Your task to perform on an android device: Open calendar and show me the first week of next month Image 0: 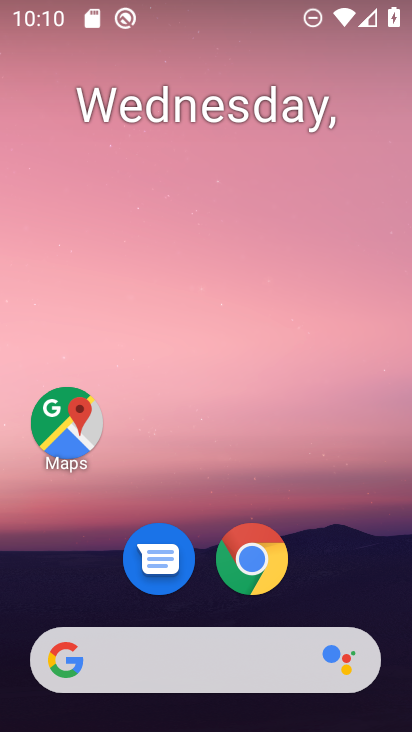
Step 0: drag from (381, 590) to (365, 224)
Your task to perform on an android device: Open calendar and show me the first week of next month Image 1: 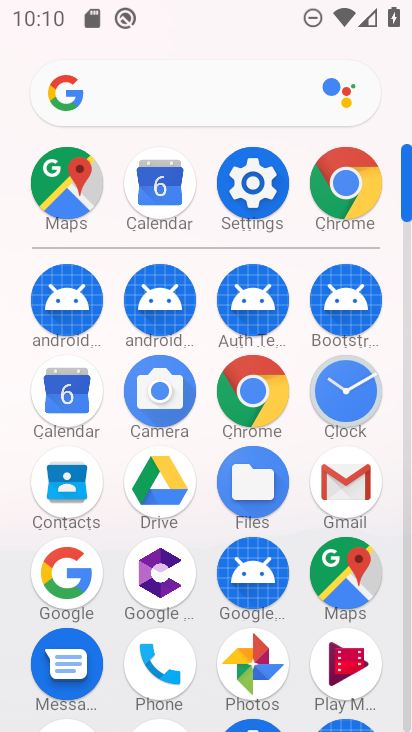
Step 1: click (81, 394)
Your task to perform on an android device: Open calendar and show me the first week of next month Image 2: 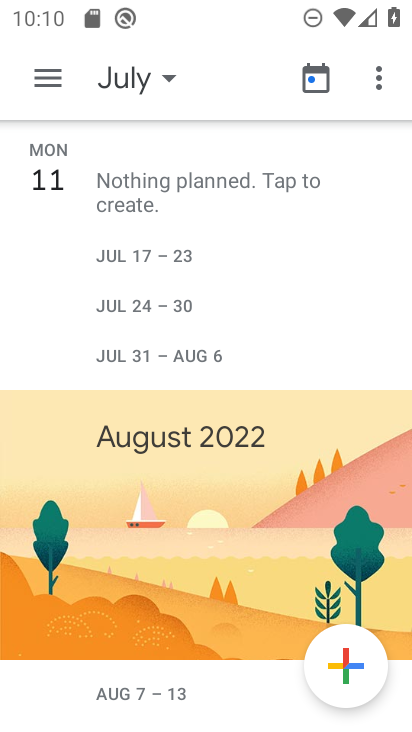
Step 2: click (163, 82)
Your task to perform on an android device: Open calendar and show me the first week of next month Image 3: 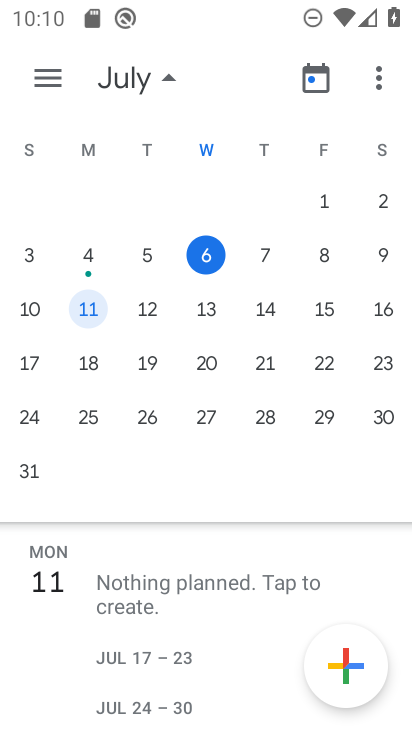
Step 3: drag from (387, 172) to (36, 304)
Your task to perform on an android device: Open calendar and show me the first week of next month Image 4: 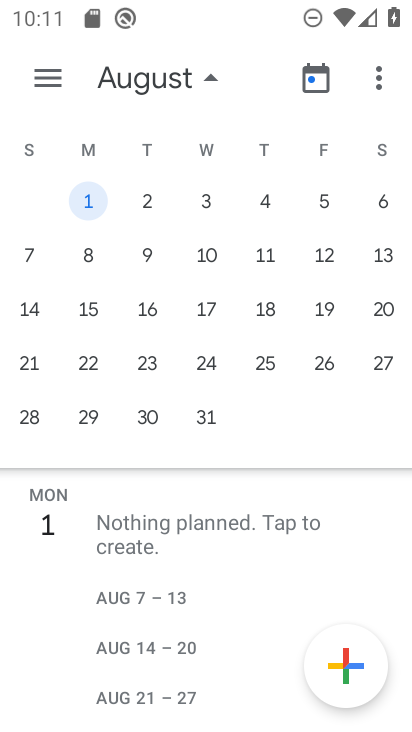
Step 4: click (89, 189)
Your task to perform on an android device: Open calendar and show me the first week of next month Image 5: 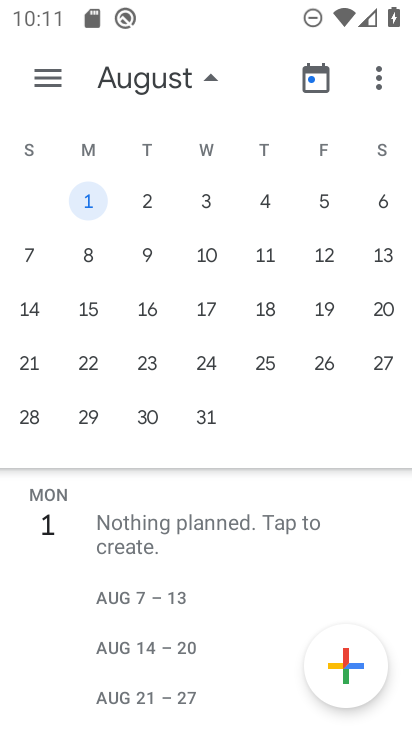
Step 5: task complete